Your task to perform on an android device: Open Google Image 0: 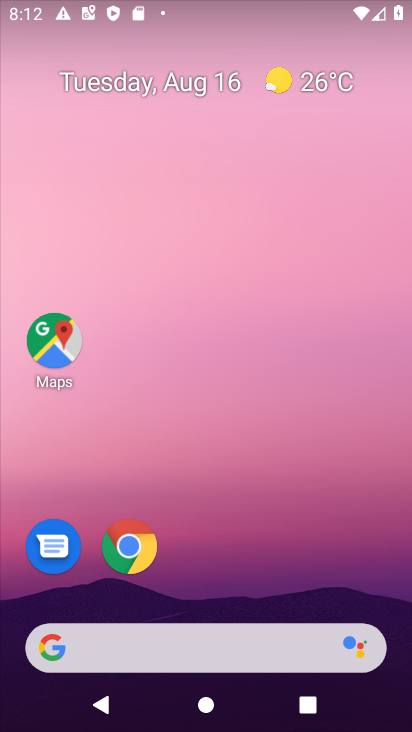
Step 0: click (248, 636)
Your task to perform on an android device: Open Google Image 1: 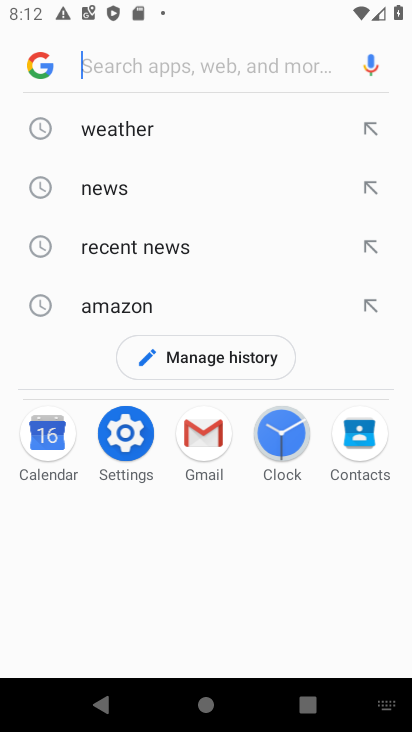
Step 1: click (38, 66)
Your task to perform on an android device: Open Google Image 2: 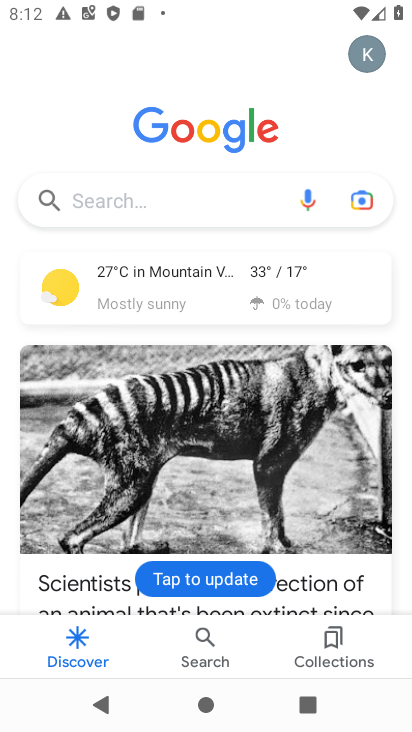
Step 2: drag from (274, 408) to (314, 187)
Your task to perform on an android device: Open Google Image 3: 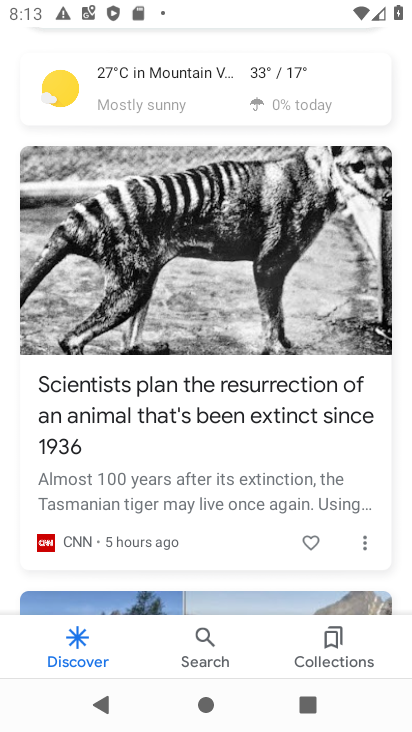
Step 3: click (202, 392)
Your task to perform on an android device: Open Google Image 4: 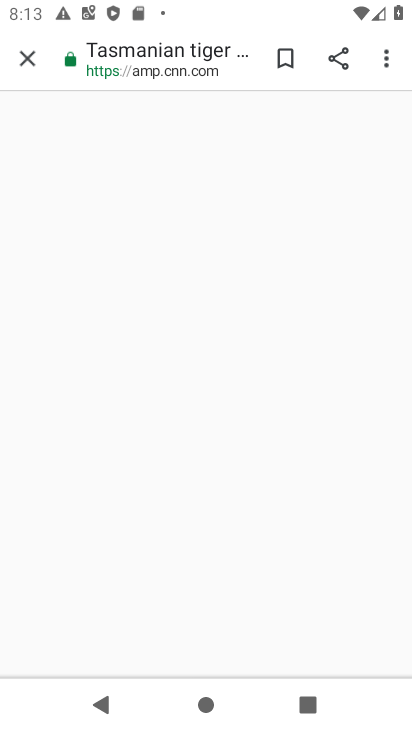
Step 4: task complete